Your task to perform on an android device: Show me recent news Image 0: 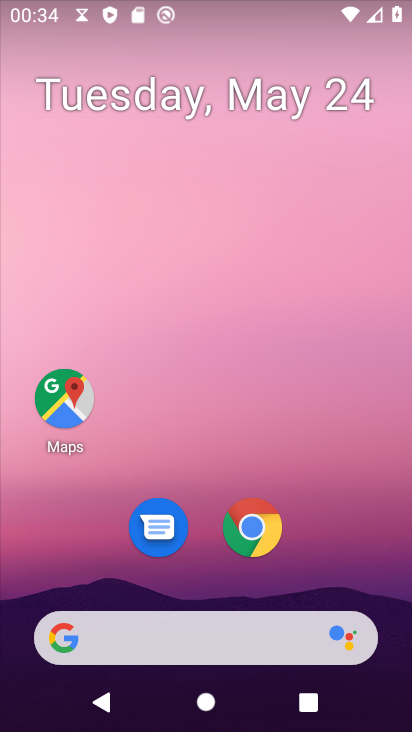
Step 0: press home button
Your task to perform on an android device: Show me recent news Image 1: 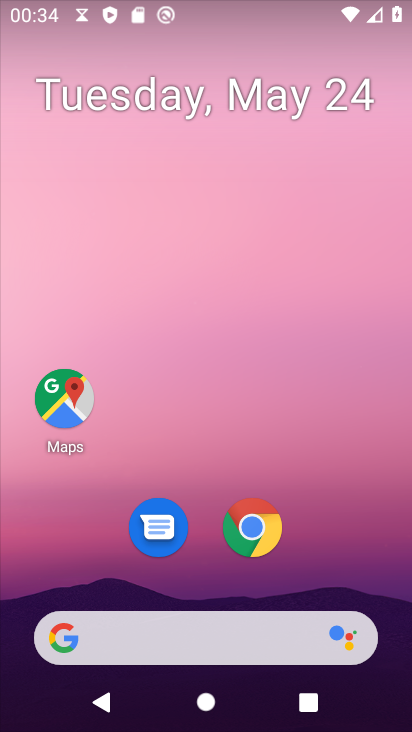
Step 1: click (65, 637)
Your task to perform on an android device: Show me recent news Image 2: 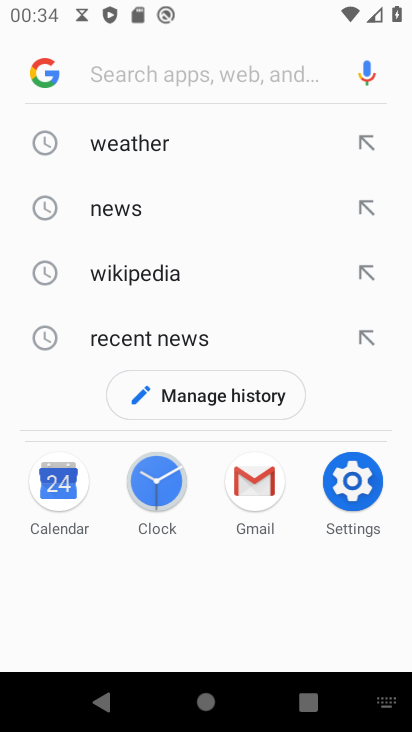
Step 2: click (165, 339)
Your task to perform on an android device: Show me recent news Image 3: 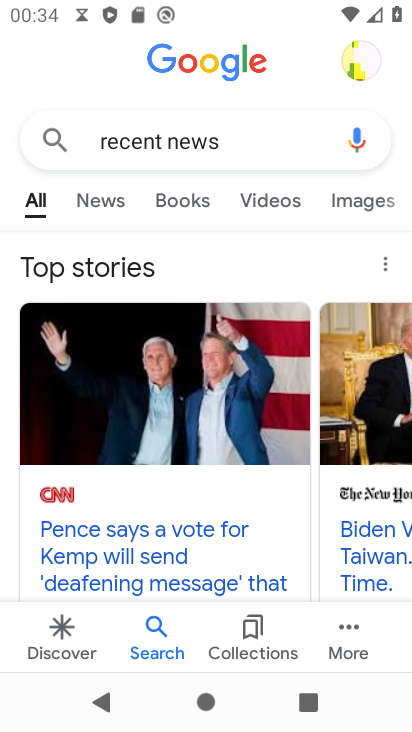
Step 3: click (113, 205)
Your task to perform on an android device: Show me recent news Image 4: 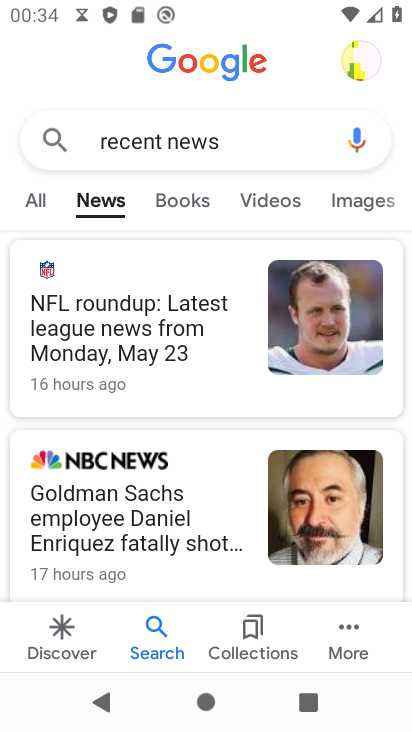
Step 4: task complete